Your task to perform on an android device: choose inbox layout in the gmail app Image 0: 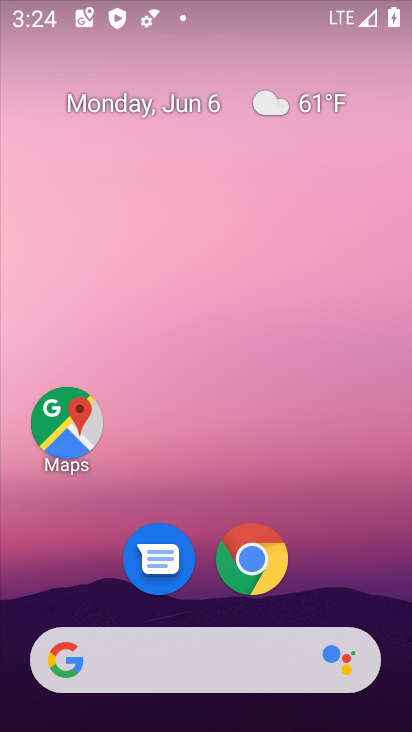
Step 0: drag from (183, 330) to (145, 19)
Your task to perform on an android device: choose inbox layout in the gmail app Image 1: 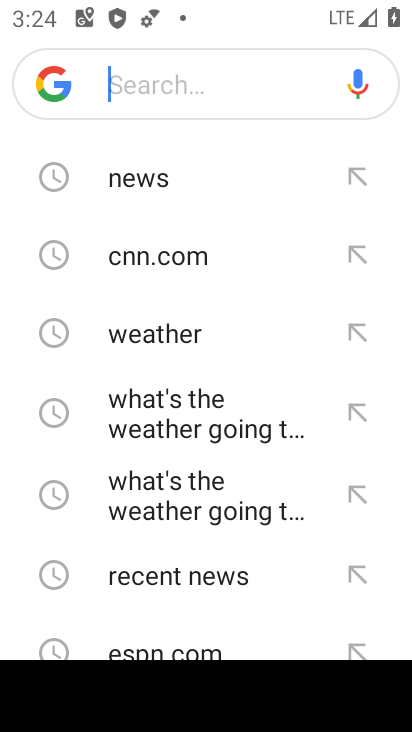
Step 1: press home button
Your task to perform on an android device: choose inbox layout in the gmail app Image 2: 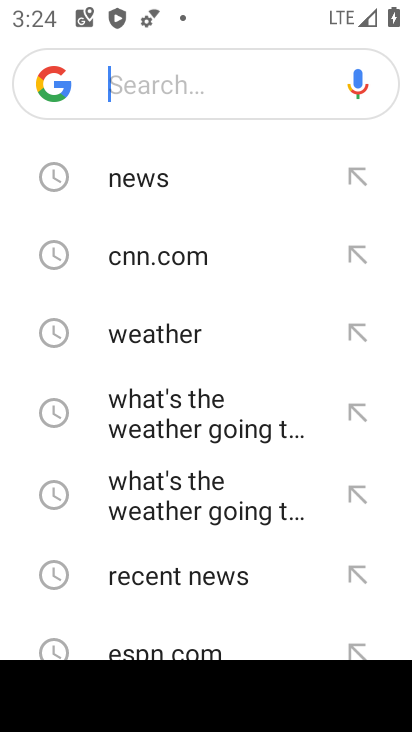
Step 2: drag from (145, 19) to (39, 33)
Your task to perform on an android device: choose inbox layout in the gmail app Image 3: 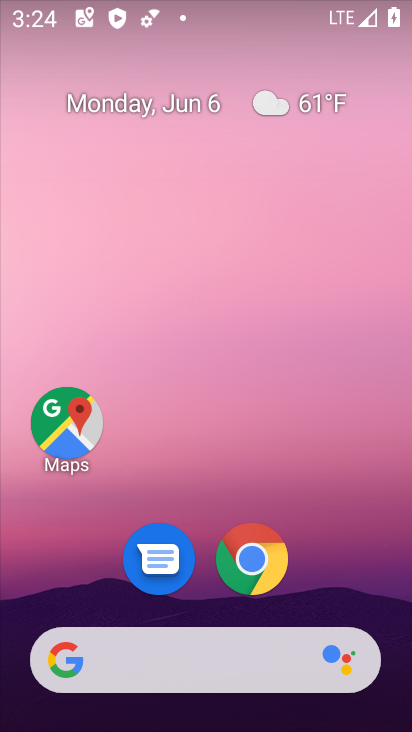
Step 3: drag from (199, 628) to (402, 482)
Your task to perform on an android device: choose inbox layout in the gmail app Image 4: 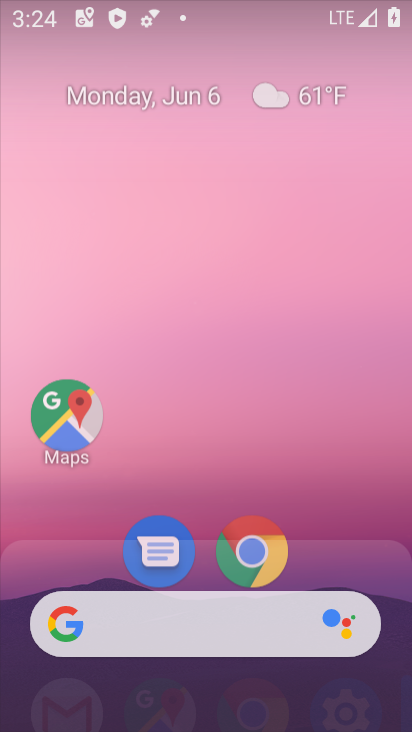
Step 4: click (339, 532)
Your task to perform on an android device: choose inbox layout in the gmail app Image 5: 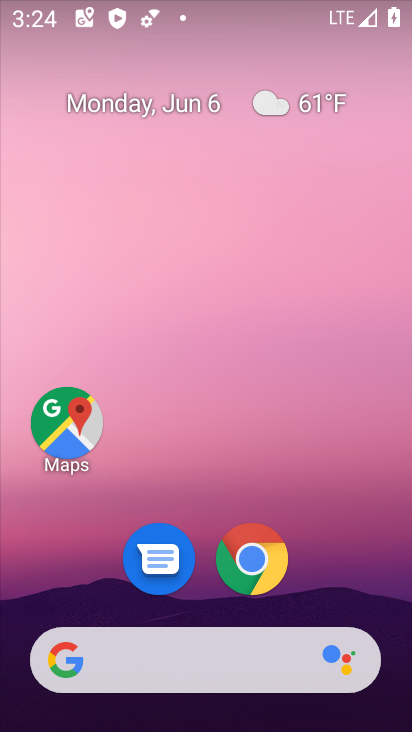
Step 5: drag from (231, 609) to (296, 4)
Your task to perform on an android device: choose inbox layout in the gmail app Image 6: 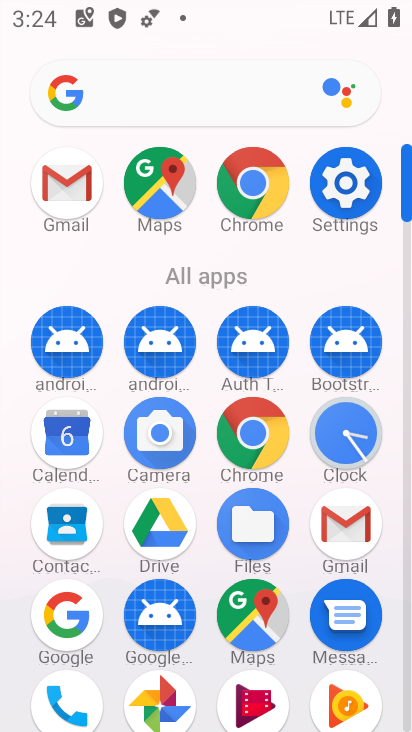
Step 6: click (358, 541)
Your task to perform on an android device: choose inbox layout in the gmail app Image 7: 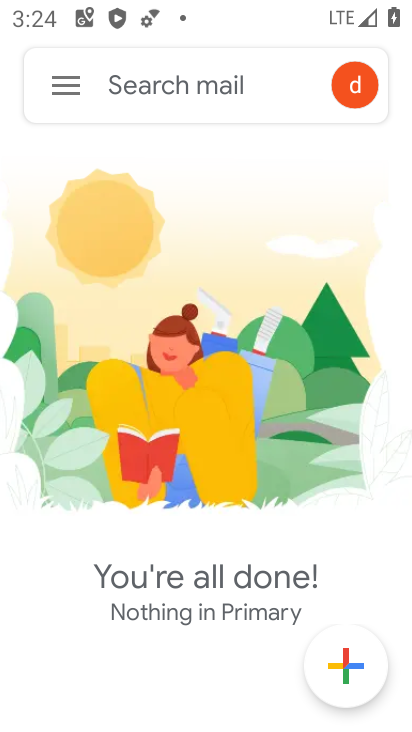
Step 7: click (61, 95)
Your task to perform on an android device: choose inbox layout in the gmail app Image 8: 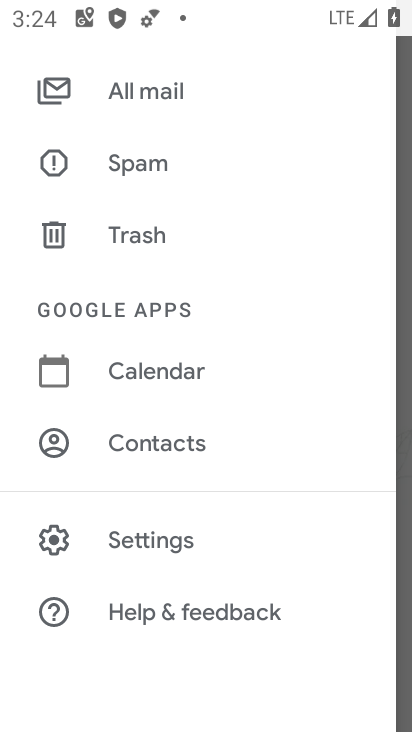
Step 8: drag from (125, 159) to (117, 609)
Your task to perform on an android device: choose inbox layout in the gmail app Image 9: 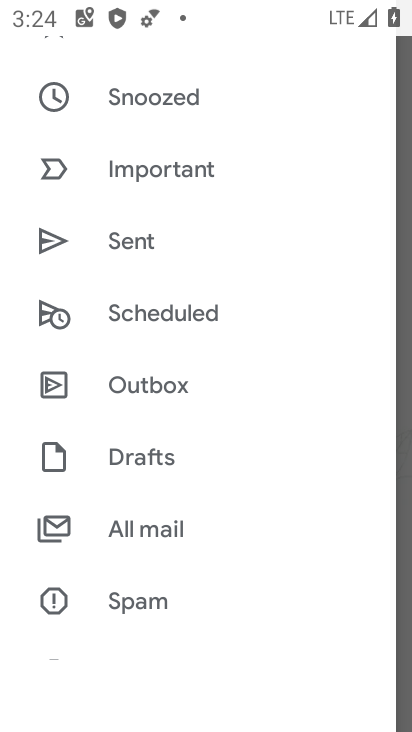
Step 9: drag from (185, 321) to (185, 454)
Your task to perform on an android device: choose inbox layout in the gmail app Image 10: 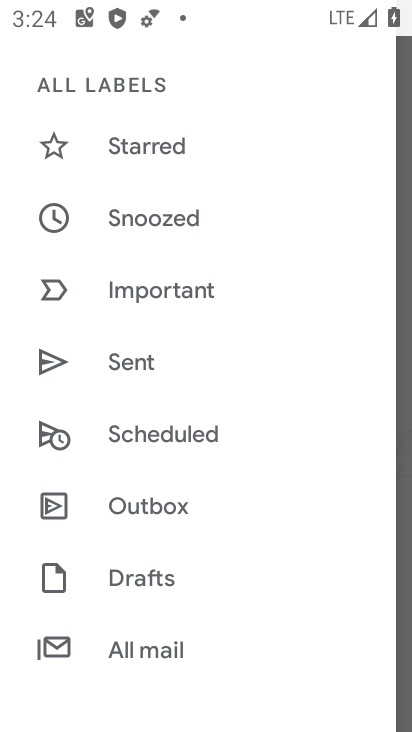
Step 10: drag from (224, 177) to (212, 679)
Your task to perform on an android device: choose inbox layout in the gmail app Image 11: 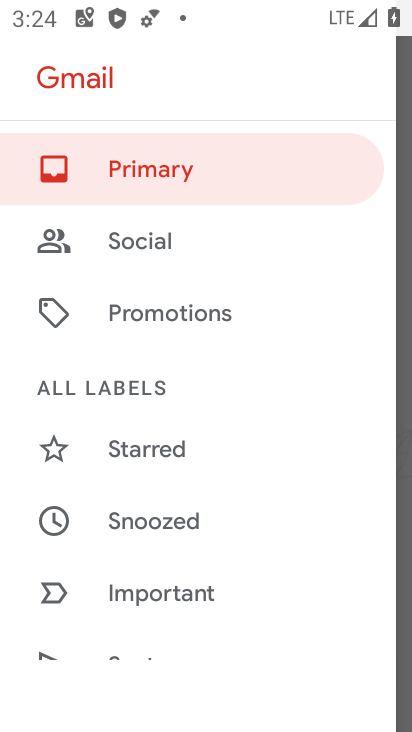
Step 11: drag from (211, 524) to (200, 4)
Your task to perform on an android device: choose inbox layout in the gmail app Image 12: 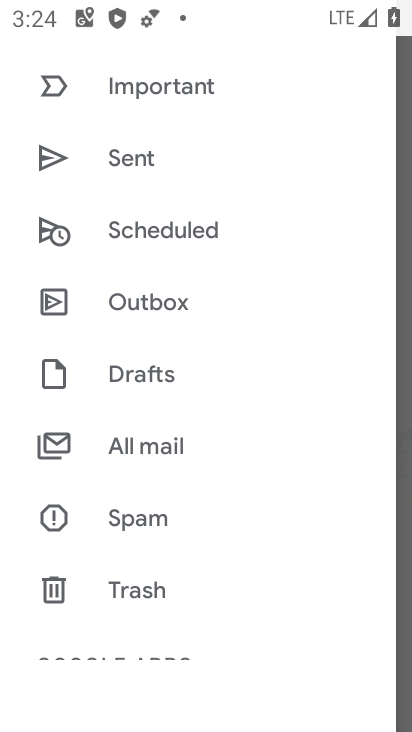
Step 12: drag from (195, 634) to (153, 11)
Your task to perform on an android device: choose inbox layout in the gmail app Image 13: 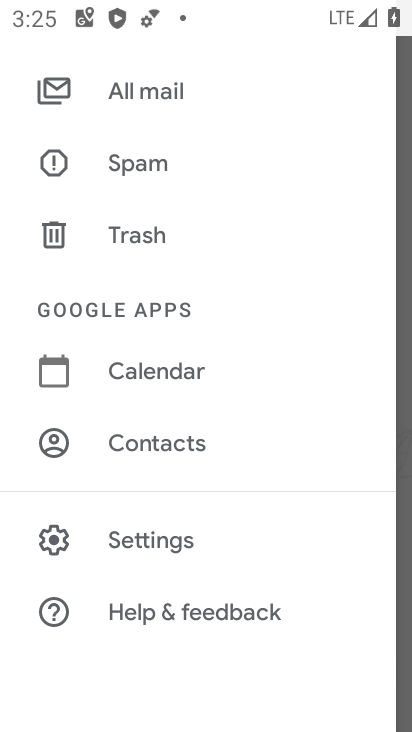
Step 13: click (156, 547)
Your task to perform on an android device: choose inbox layout in the gmail app Image 14: 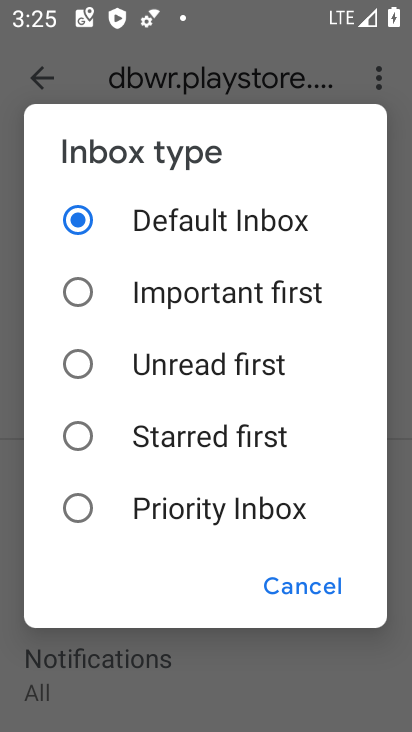
Step 14: task complete